Your task to perform on an android device: open a new tab in the chrome app Image 0: 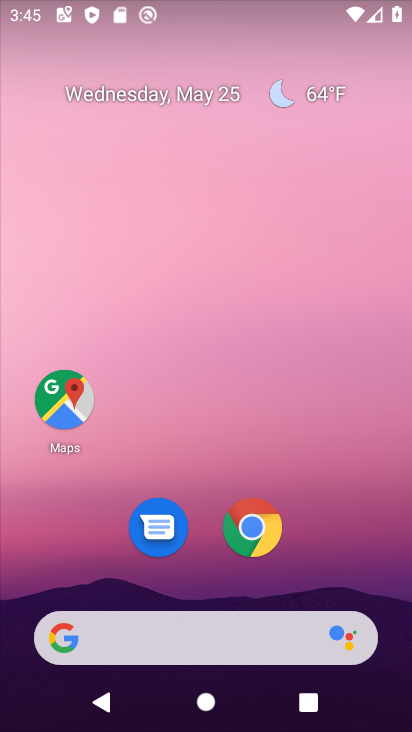
Step 0: click (256, 524)
Your task to perform on an android device: open a new tab in the chrome app Image 1: 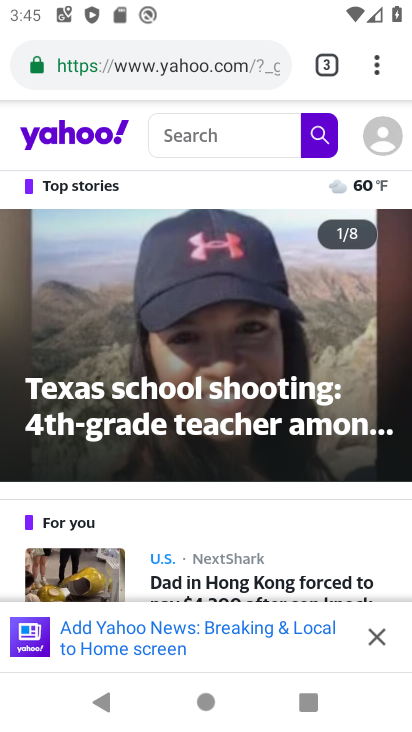
Step 1: task complete